Your task to perform on an android device: turn on location history Image 0: 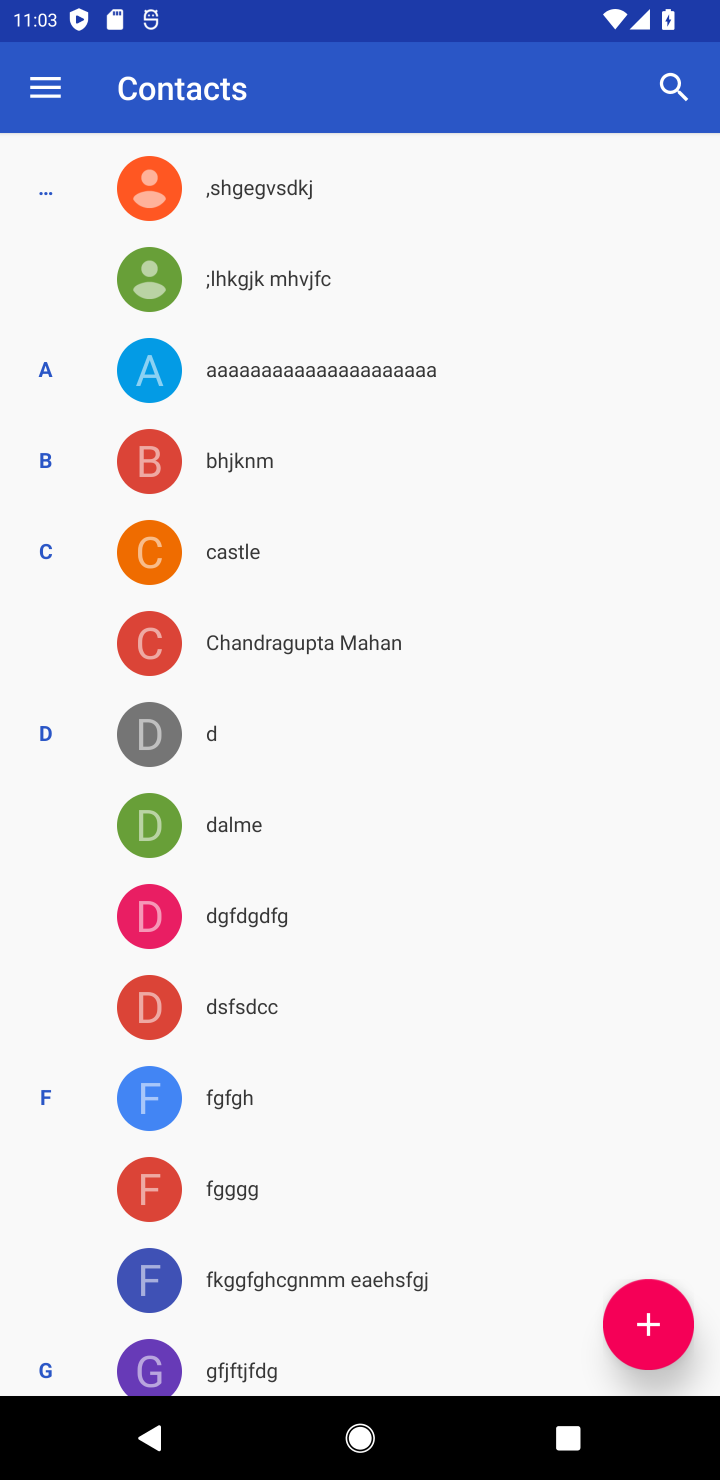
Step 0: press home button
Your task to perform on an android device: turn on location history Image 1: 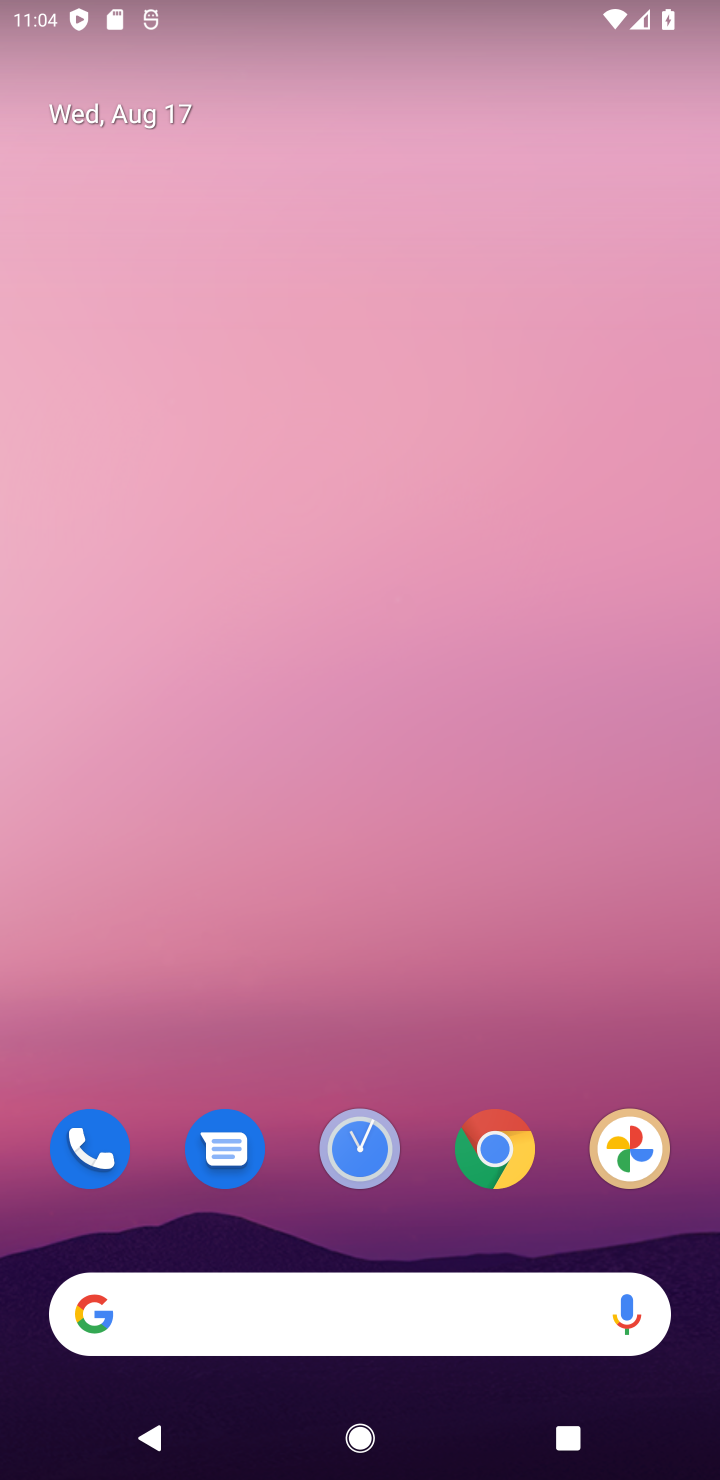
Step 1: drag from (399, 724) to (455, 56)
Your task to perform on an android device: turn on location history Image 2: 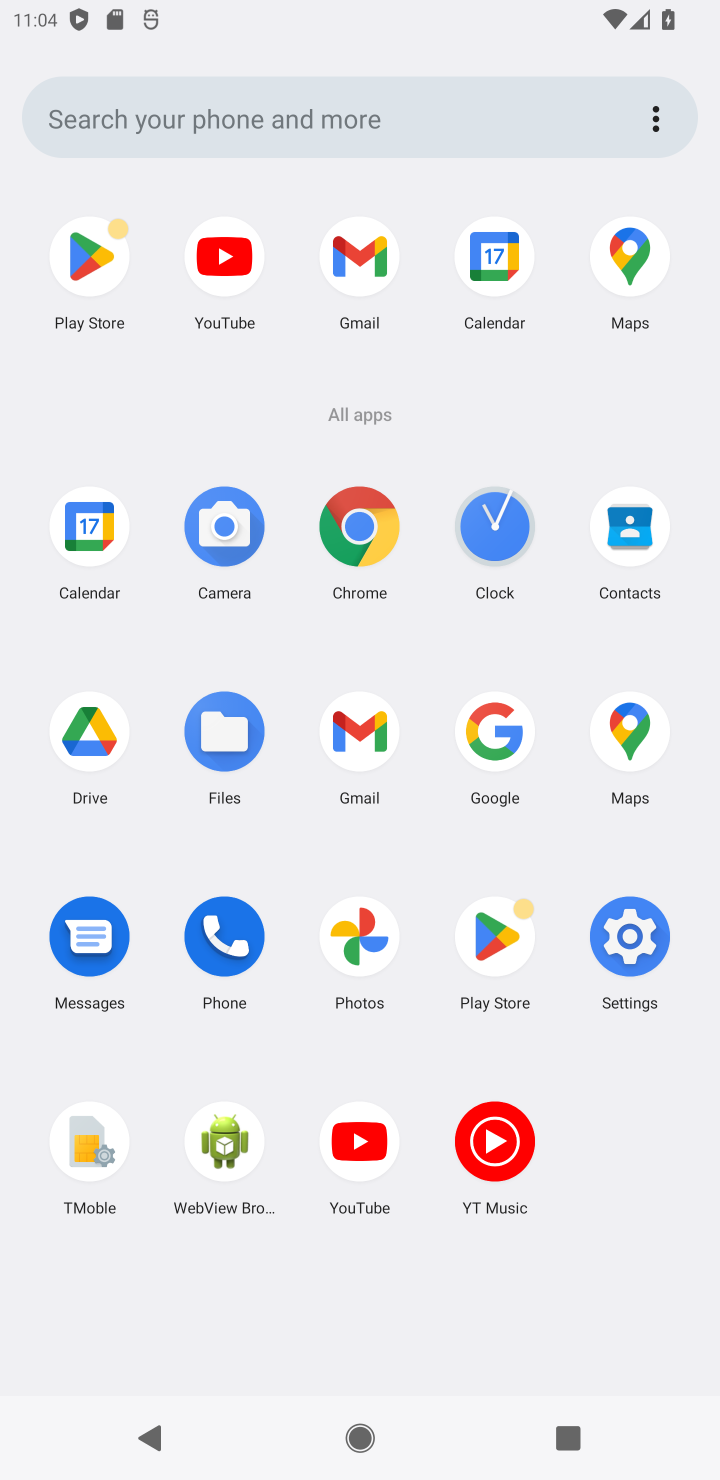
Step 2: click (626, 933)
Your task to perform on an android device: turn on location history Image 3: 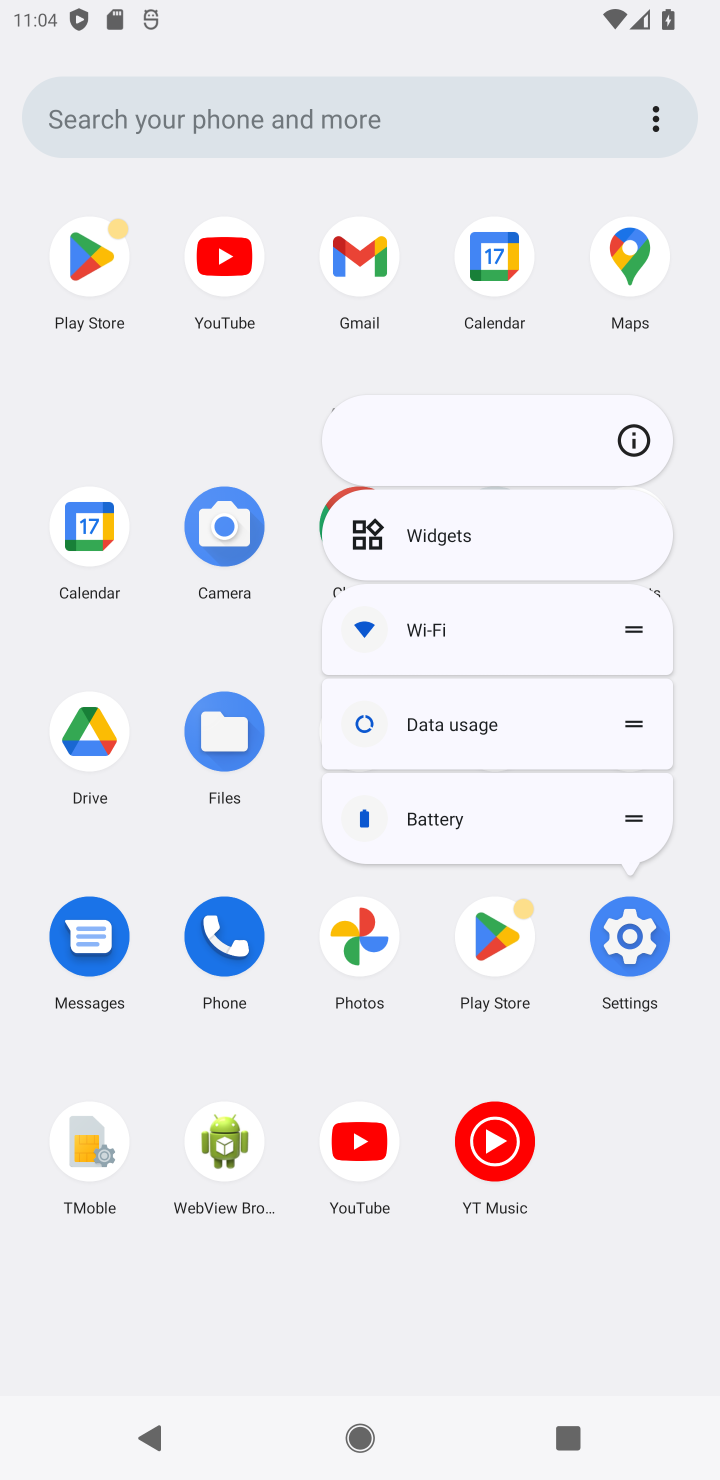
Step 3: click (620, 921)
Your task to perform on an android device: turn on location history Image 4: 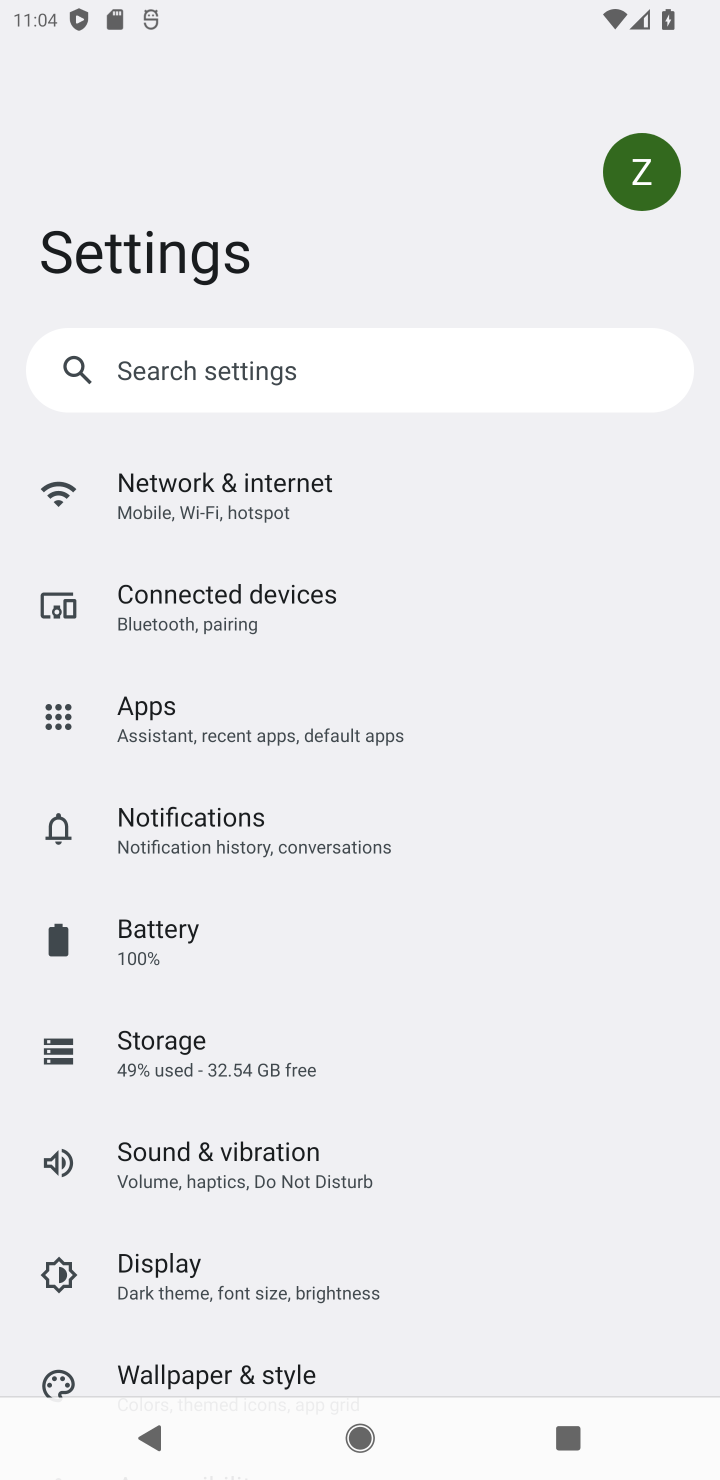
Step 4: click (620, 919)
Your task to perform on an android device: turn on location history Image 5: 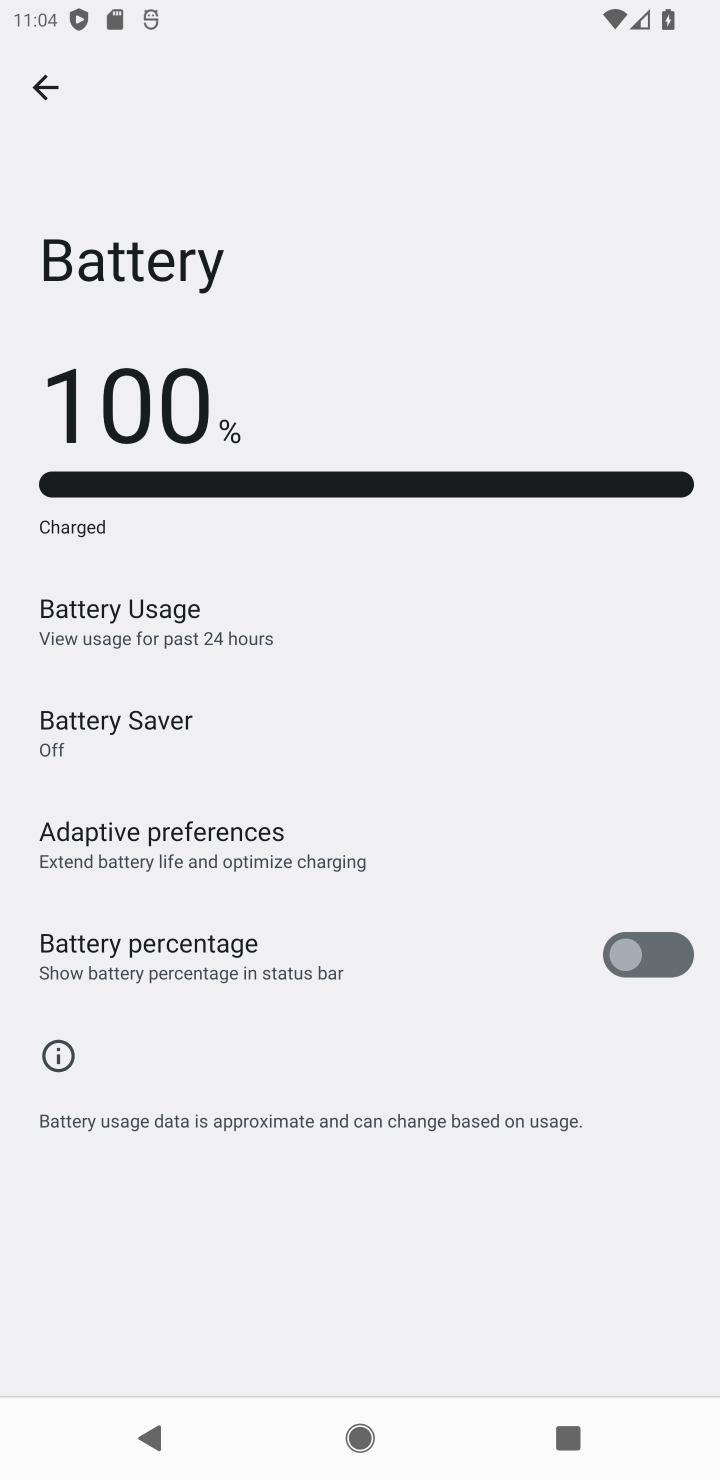
Step 5: click (44, 94)
Your task to perform on an android device: turn on location history Image 6: 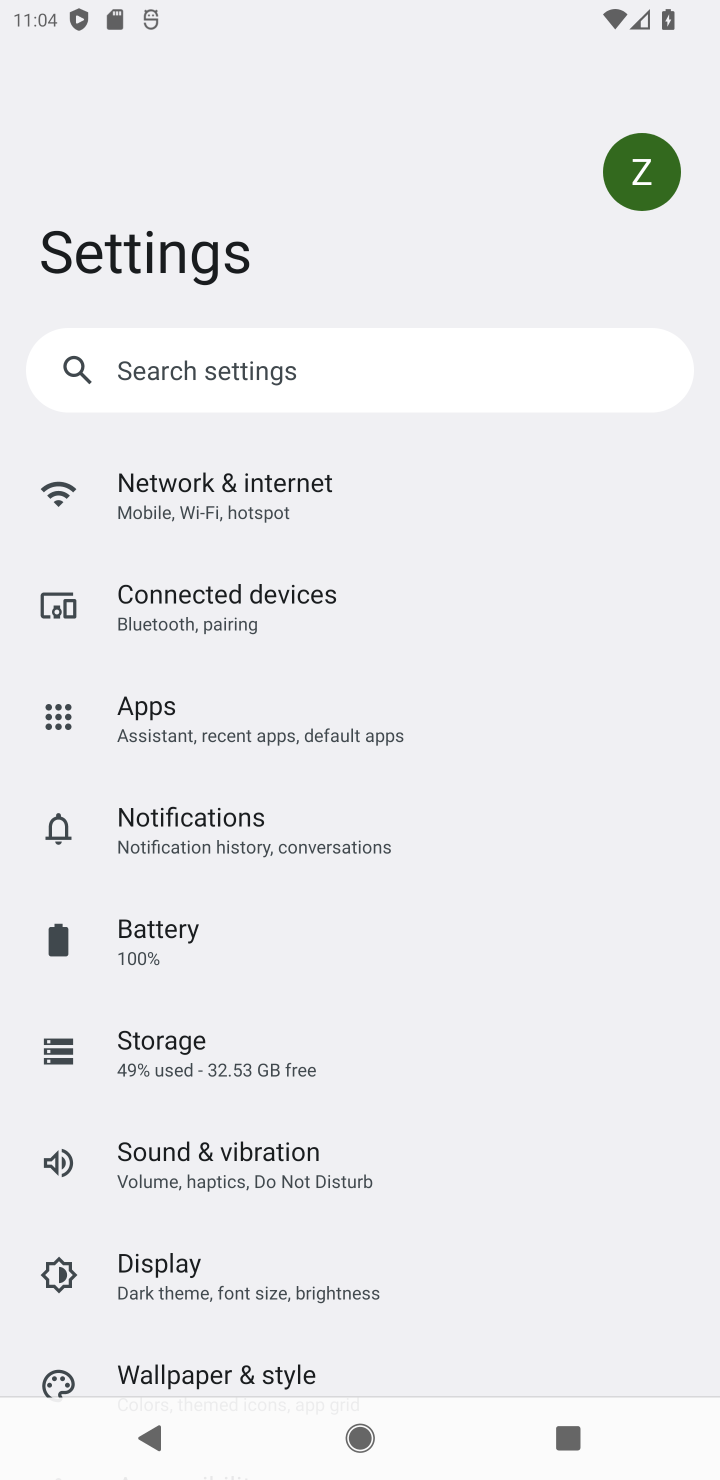
Step 6: drag from (317, 1133) to (435, 431)
Your task to perform on an android device: turn on location history Image 7: 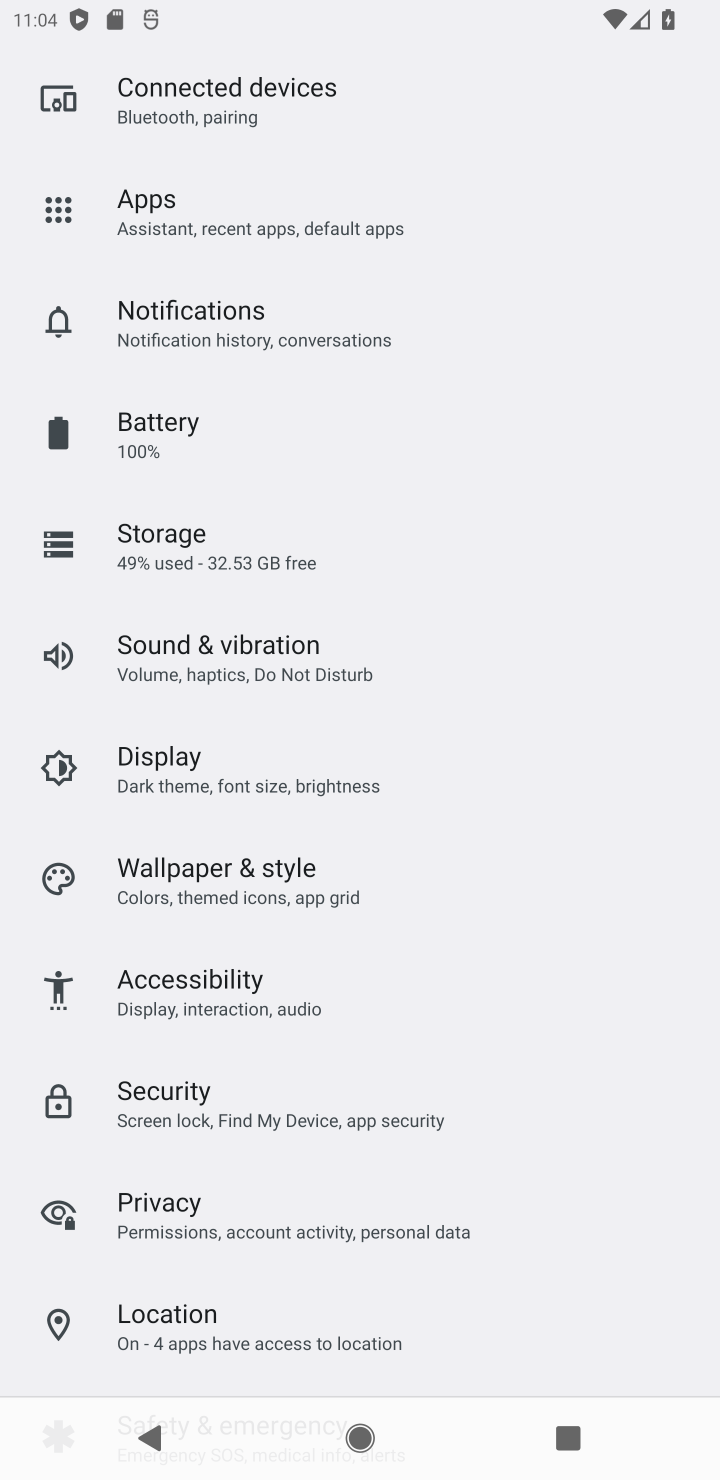
Step 7: click (219, 1330)
Your task to perform on an android device: turn on location history Image 8: 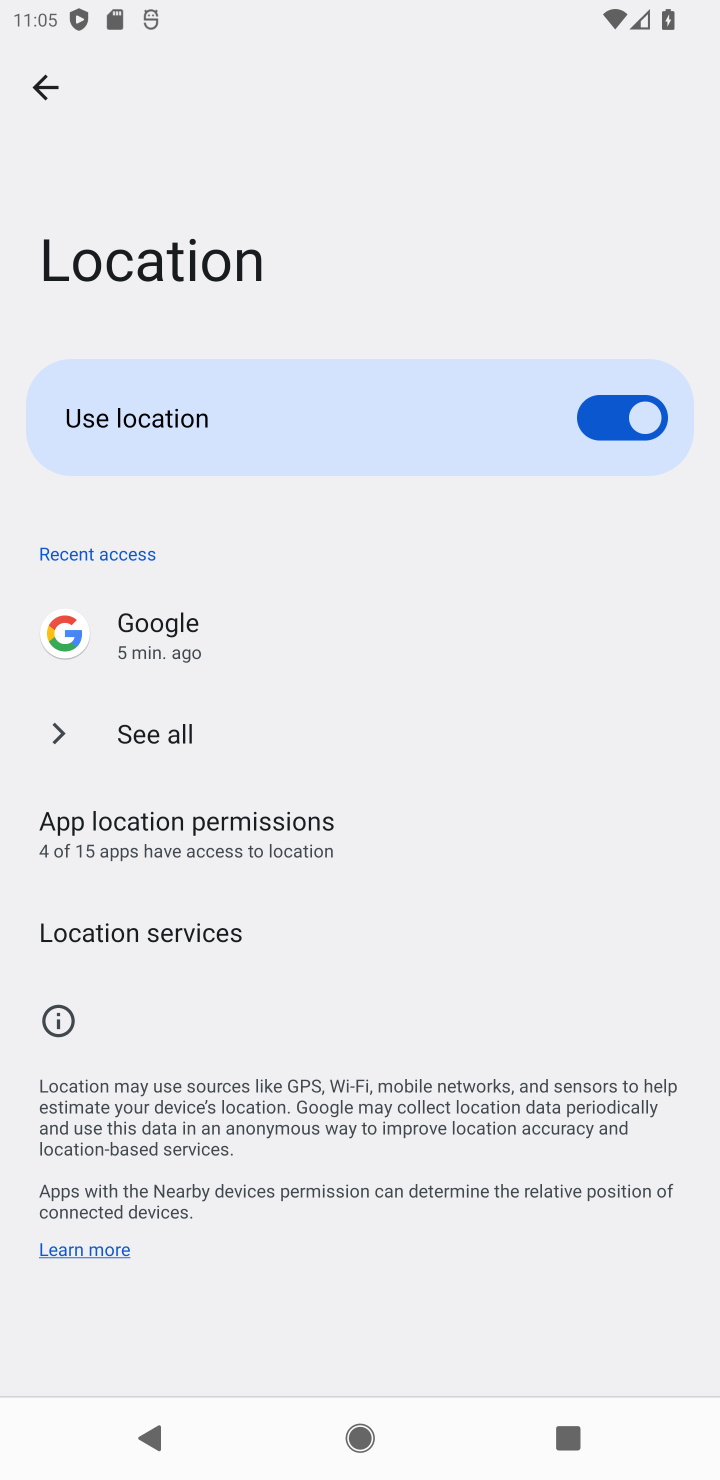
Step 8: task complete